Your task to perform on an android device: turn off airplane mode Image 0: 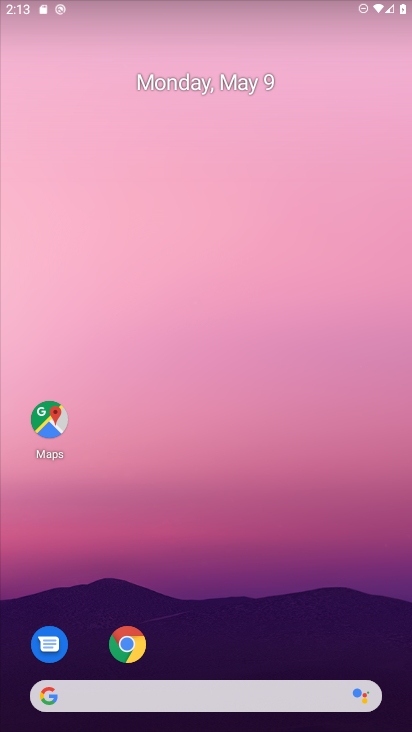
Step 0: drag from (282, 621) to (233, 87)
Your task to perform on an android device: turn off airplane mode Image 1: 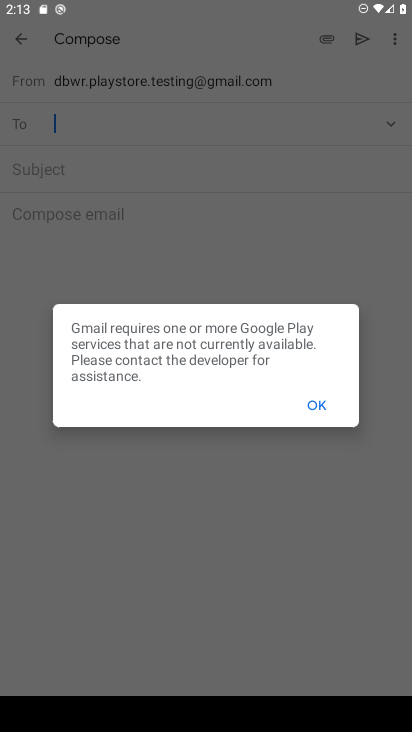
Step 1: press home button
Your task to perform on an android device: turn off airplane mode Image 2: 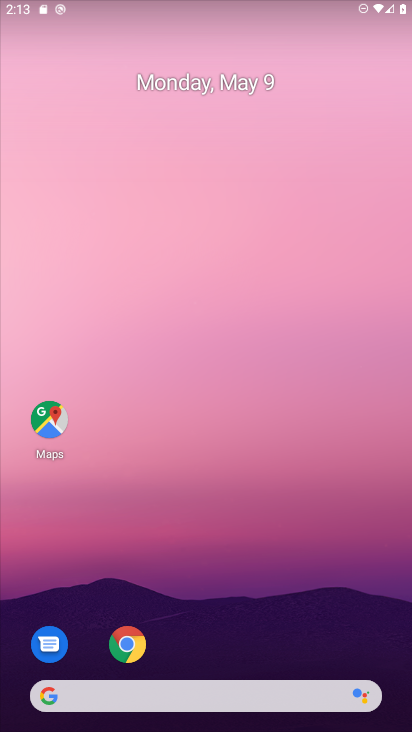
Step 2: drag from (264, 608) to (329, 180)
Your task to perform on an android device: turn off airplane mode Image 3: 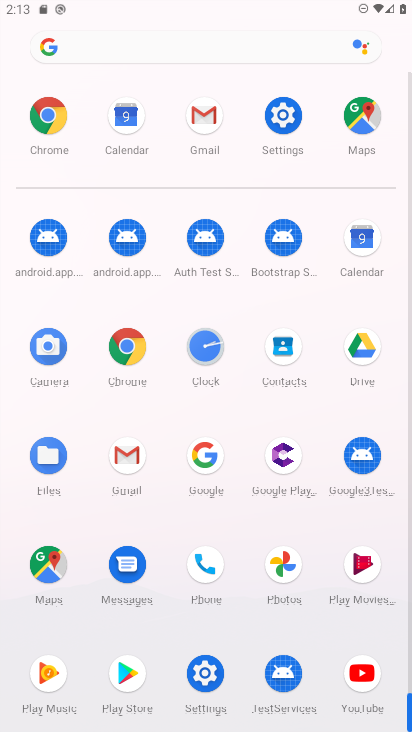
Step 3: click (302, 375)
Your task to perform on an android device: turn off airplane mode Image 4: 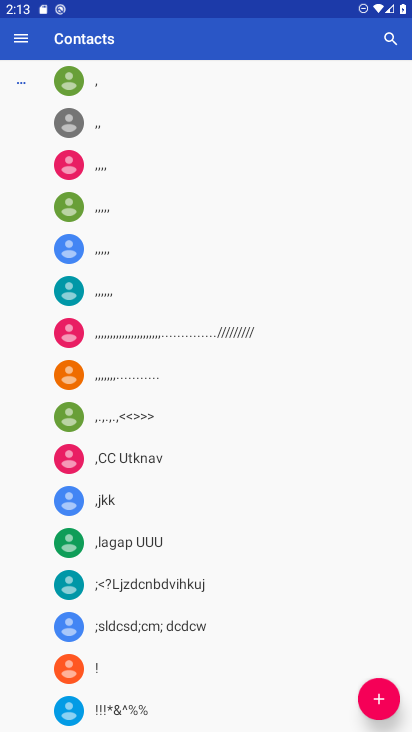
Step 4: click (387, 699)
Your task to perform on an android device: turn off airplane mode Image 5: 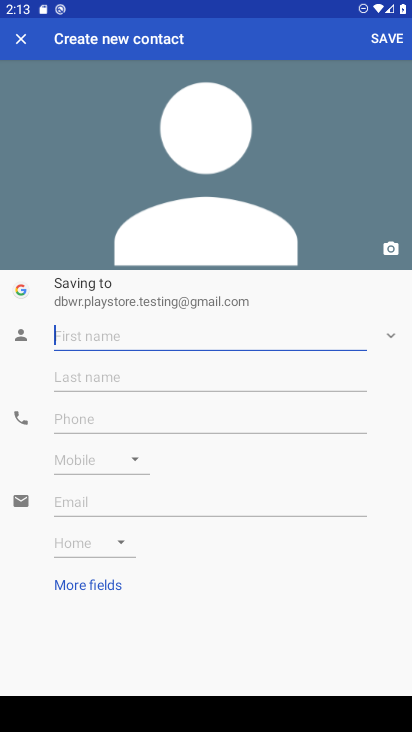
Step 5: click (120, 337)
Your task to perform on an android device: turn off airplane mode Image 6: 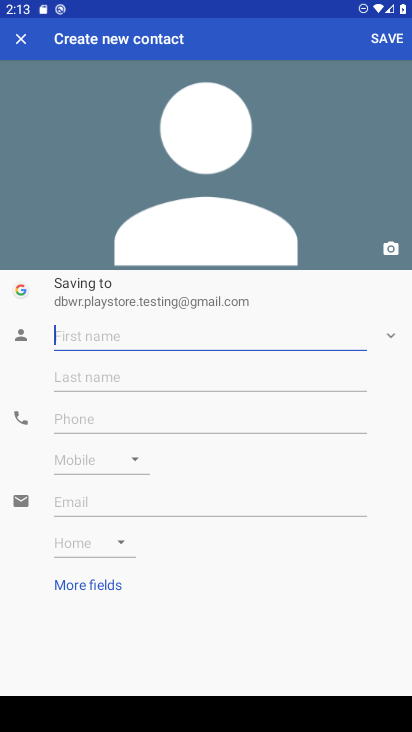
Step 6: type "Jigyasa"
Your task to perform on an android device: turn off airplane mode Image 7: 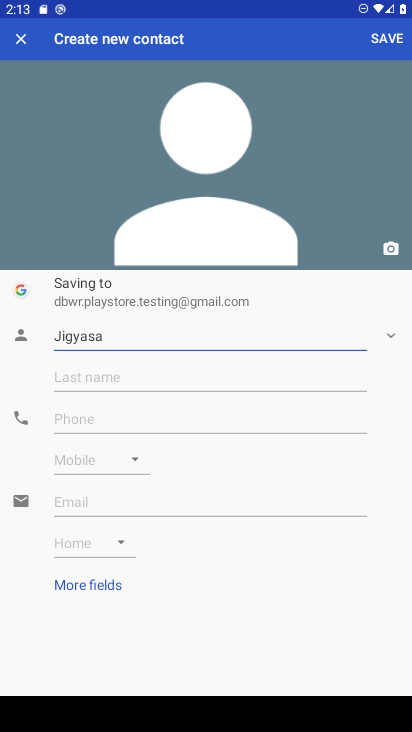
Step 7: click (298, 377)
Your task to perform on an android device: turn off airplane mode Image 8: 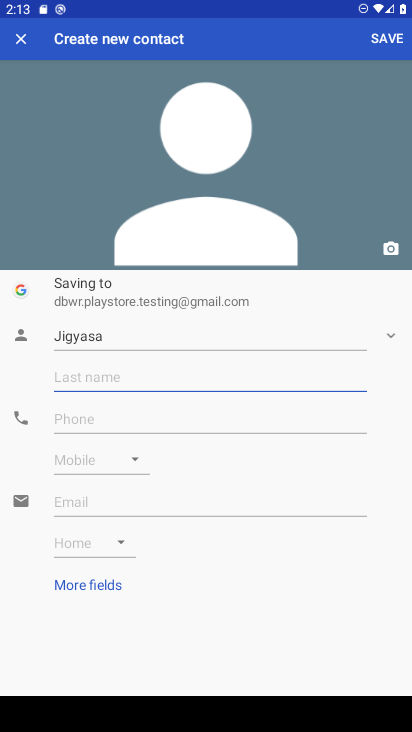
Step 8: type "vinakti"
Your task to perform on an android device: turn off airplane mode Image 9: 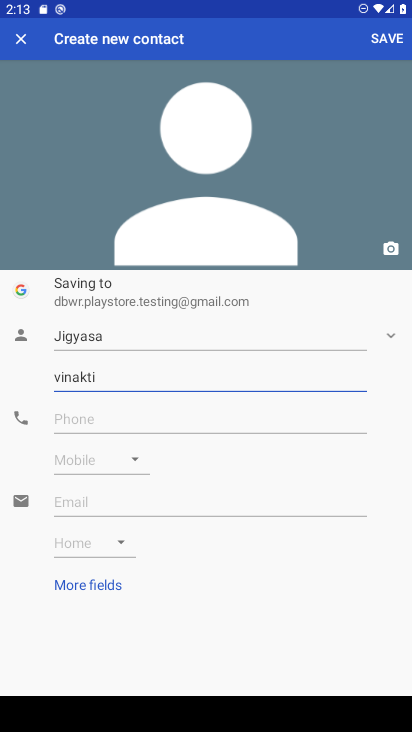
Step 9: click (166, 405)
Your task to perform on an android device: turn off airplane mode Image 10: 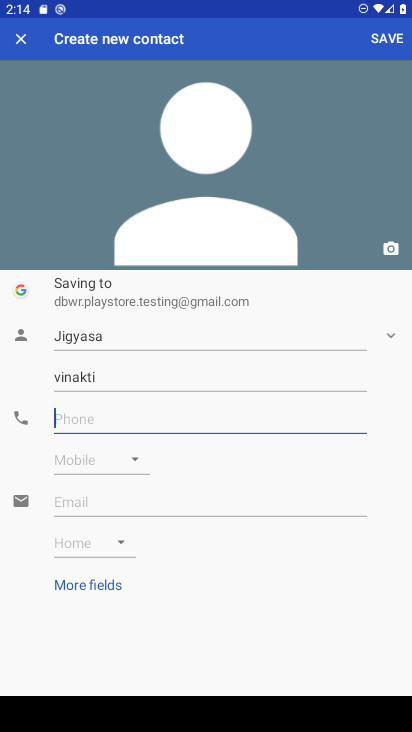
Step 10: type "7878878778"
Your task to perform on an android device: turn off airplane mode Image 11: 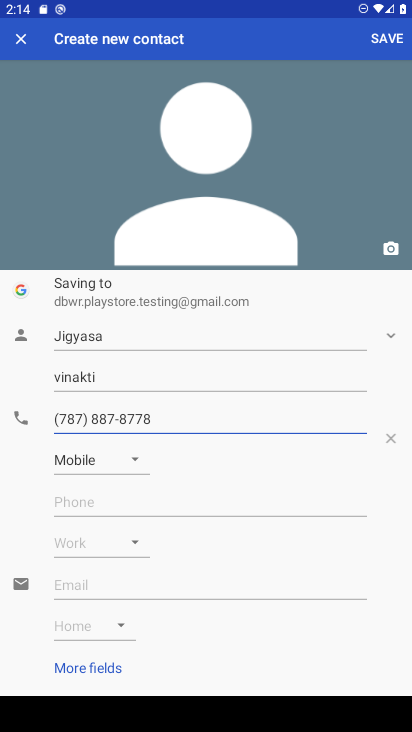
Step 11: click (396, 44)
Your task to perform on an android device: turn off airplane mode Image 12: 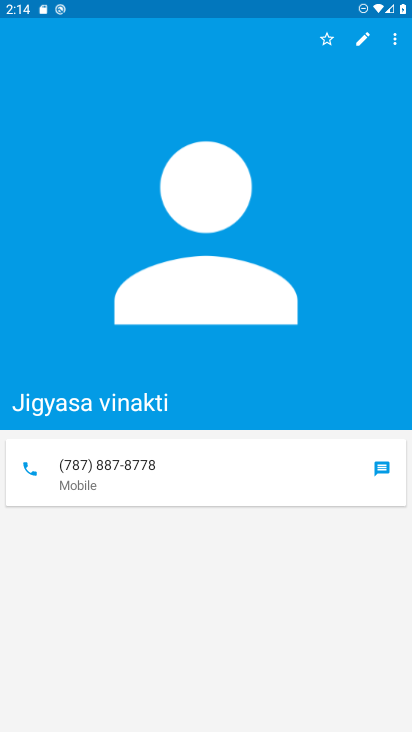
Step 12: task complete